Your task to perform on an android device: toggle airplane mode Image 0: 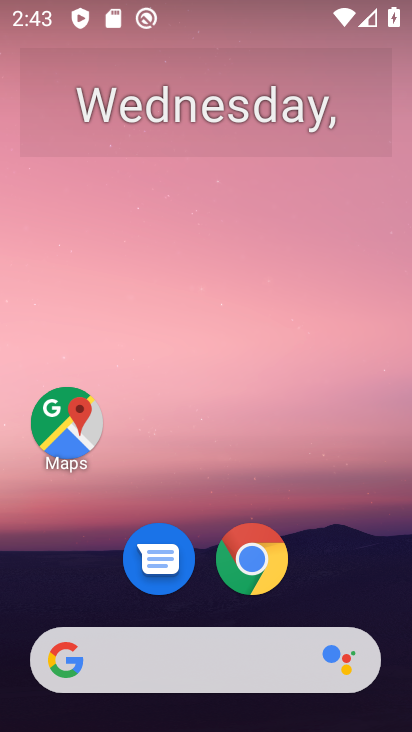
Step 0: drag from (210, 608) to (260, 69)
Your task to perform on an android device: toggle airplane mode Image 1: 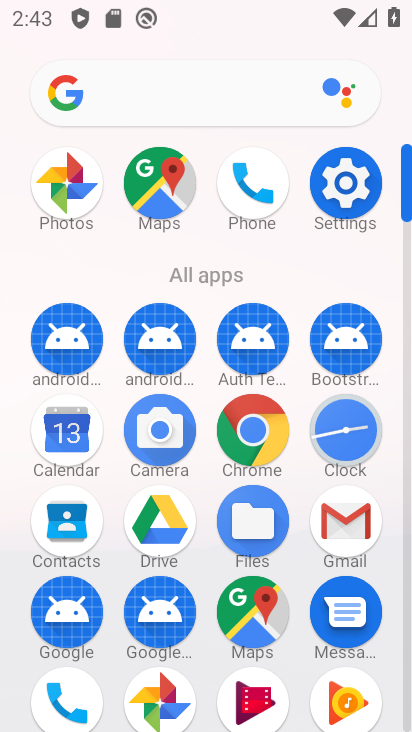
Step 1: click (355, 176)
Your task to perform on an android device: toggle airplane mode Image 2: 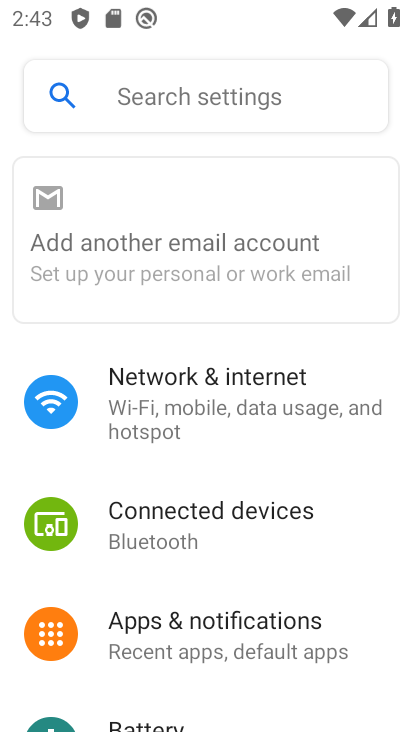
Step 2: drag from (346, 14) to (257, 692)
Your task to perform on an android device: toggle airplane mode Image 3: 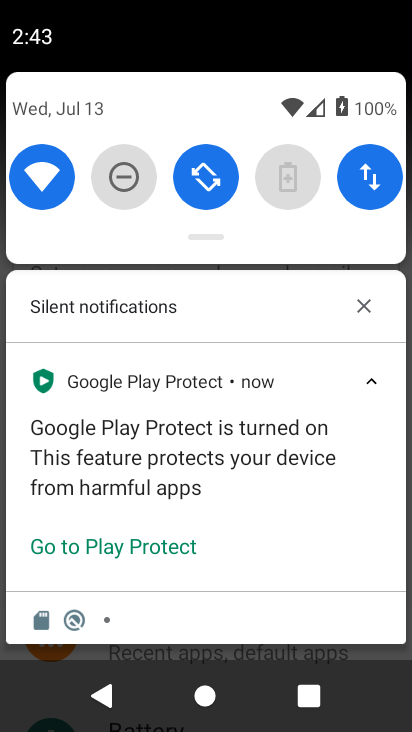
Step 3: drag from (214, 216) to (154, 629)
Your task to perform on an android device: toggle airplane mode Image 4: 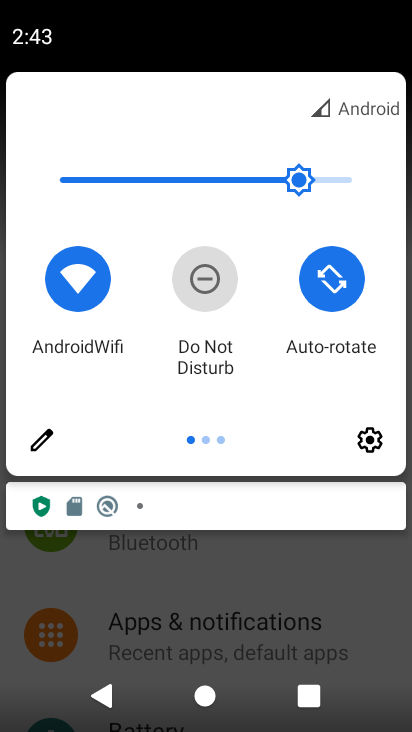
Step 4: drag from (356, 281) to (1, 261)
Your task to perform on an android device: toggle airplane mode Image 5: 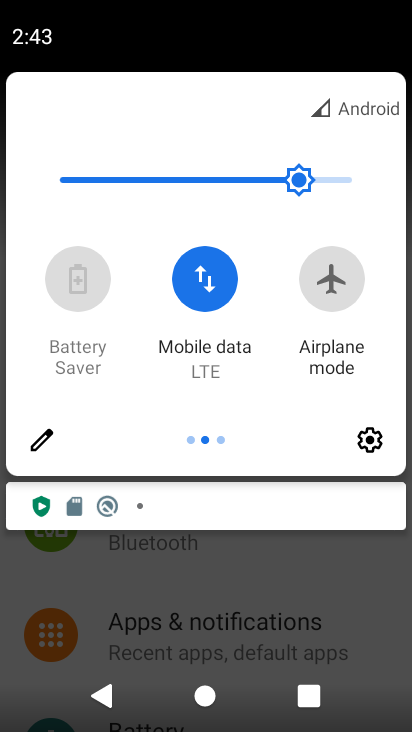
Step 5: click (318, 281)
Your task to perform on an android device: toggle airplane mode Image 6: 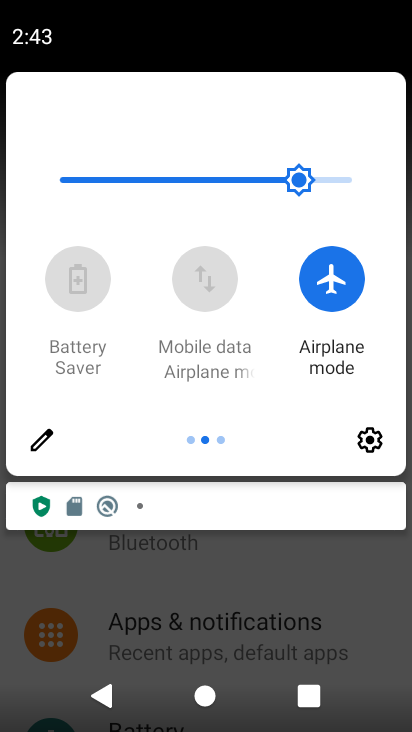
Step 6: task complete